Your task to perform on an android device: check out phone information Image 0: 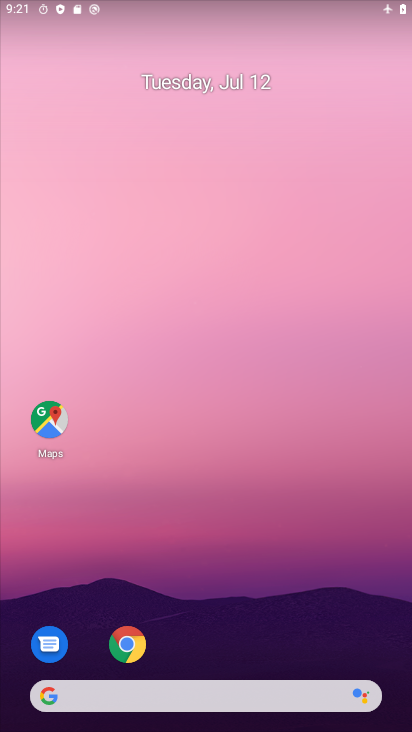
Step 0: drag from (193, 622) to (185, 191)
Your task to perform on an android device: check out phone information Image 1: 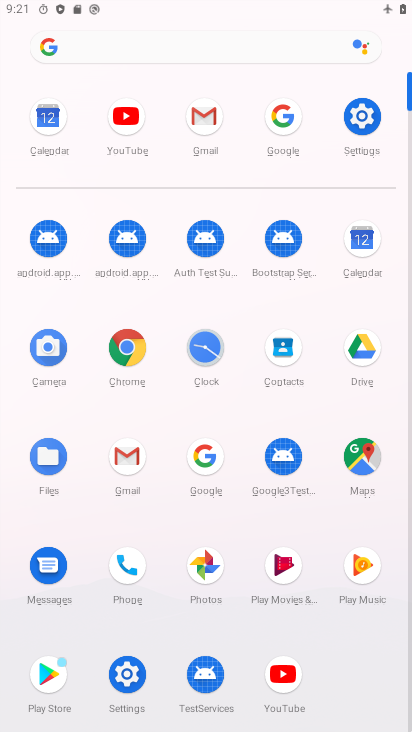
Step 1: click (373, 118)
Your task to perform on an android device: check out phone information Image 2: 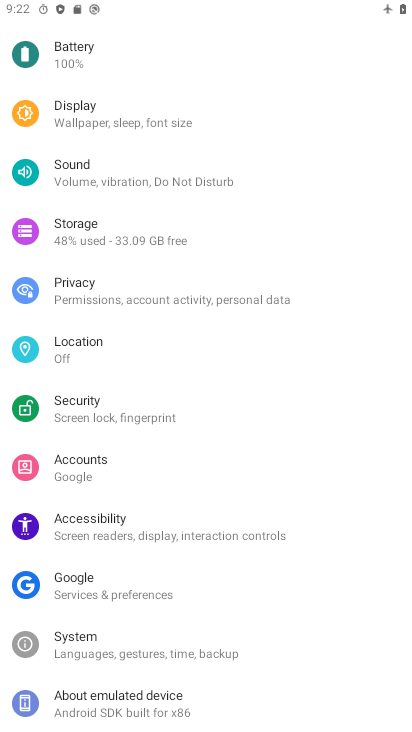
Step 2: click (166, 692)
Your task to perform on an android device: check out phone information Image 3: 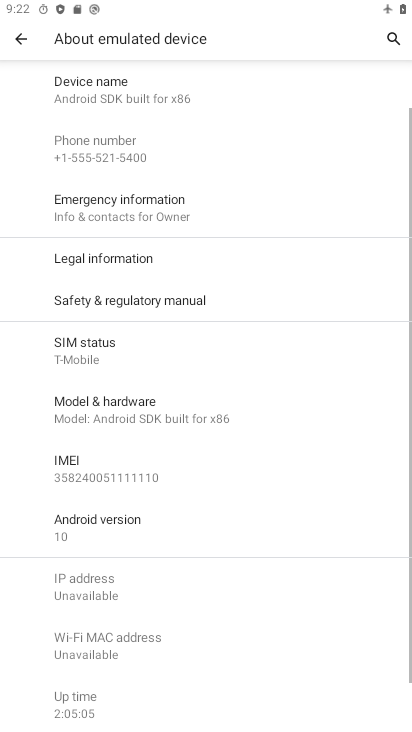
Step 3: task complete